Your task to perform on an android device: check storage Image 0: 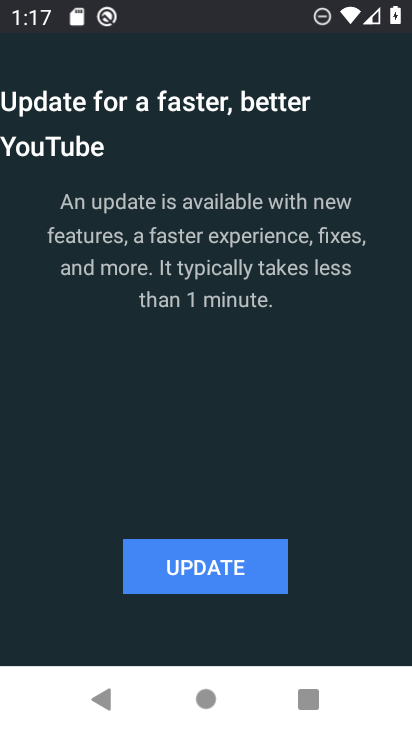
Step 0: press home button
Your task to perform on an android device: check storage Image 1: 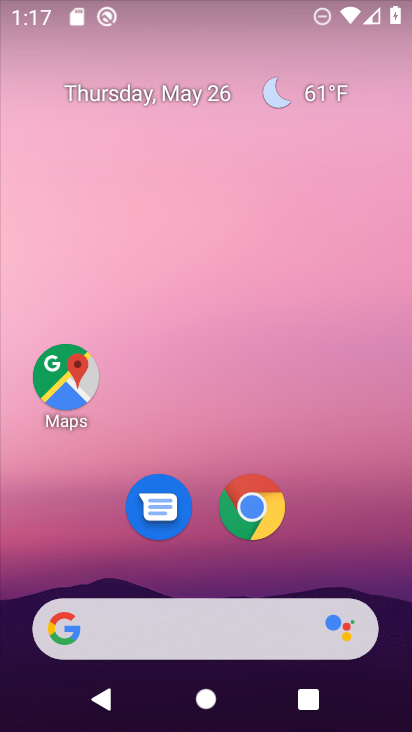
Step 1: drag from (353, 564) to (332, 85)
Your task to perform on an android device: check storage Image 2: 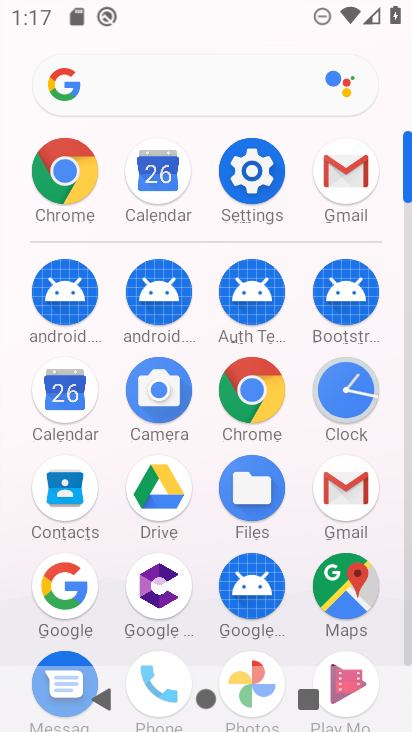
Step 2: click (276, 210)
Your task to perform on an android device: check storage Image 3: 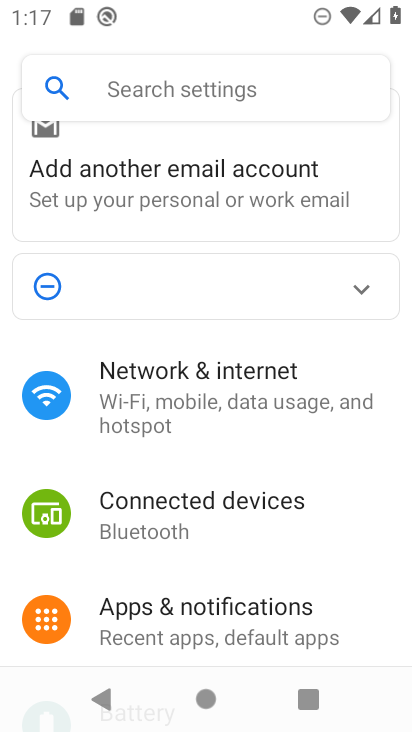
Step 3: drag from (290, 557) to (114, 67)
Your task to perform on an android device: check storage Image 4: 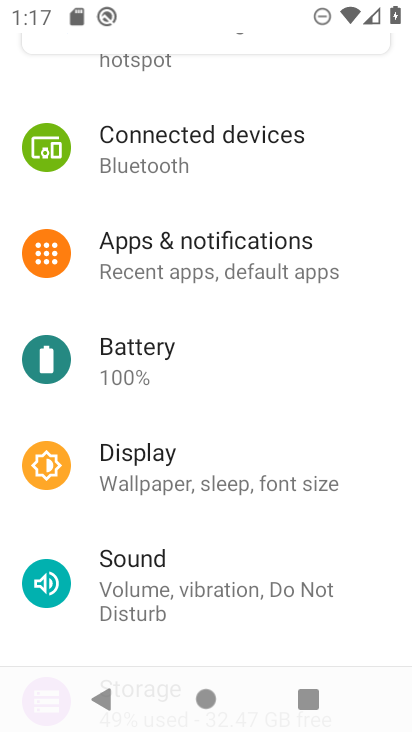
Step 4: drag from (176, 593) to (114, 287)
Your task to perform on an android device: check storage Image 5: 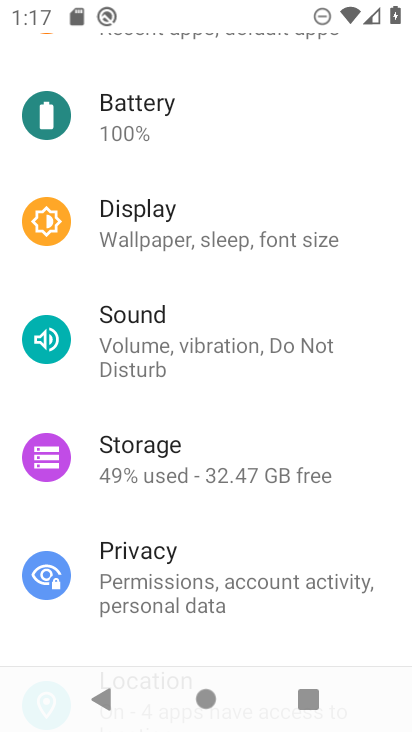
Step 5: click (176, 472)
Your task to perform on an android device: check storage Image 6: 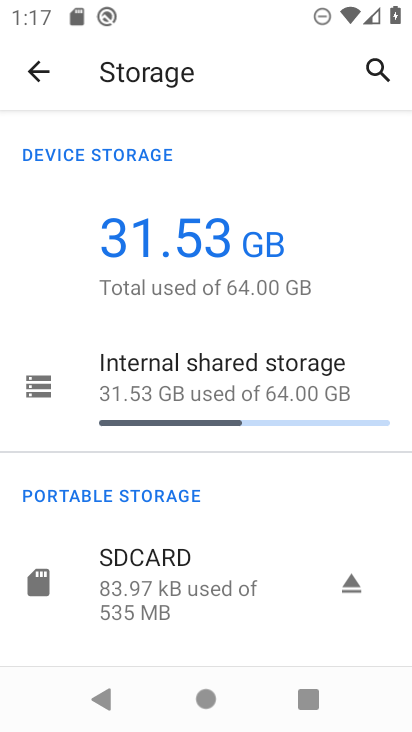
Step 6: task complete